Your task to perform on an android device: Open Wikipedia Image 0: 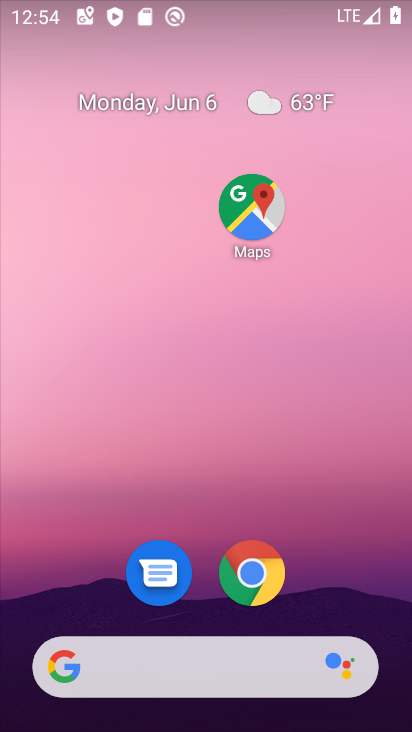
Step 0: drag from (188, 462) to (177, 67)
Your task to perform on an android device: Open Wikipedia Image 1: 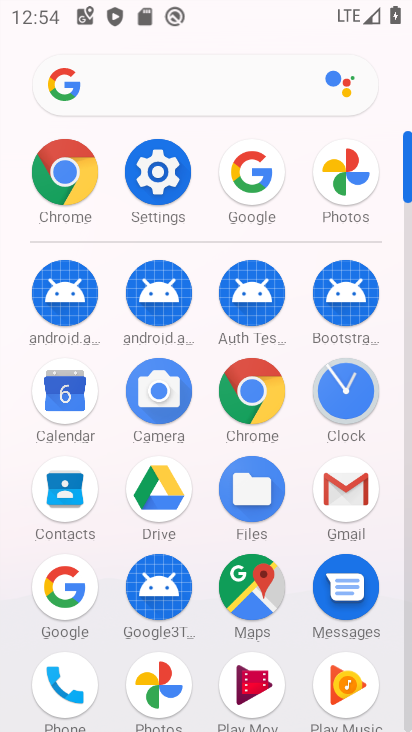
Step 1: click (258, 400)
Your task to perform on an android device: Open Wikipedia Image 2: 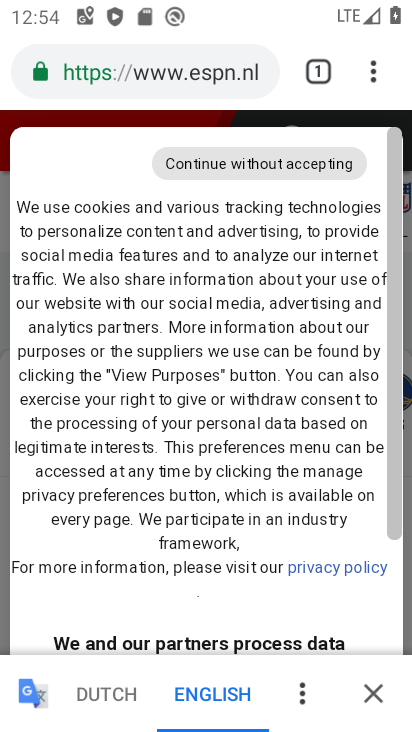
Step 2: click (319, 80)
Your task to perform on an android device: Open Wikipedia Image 3: 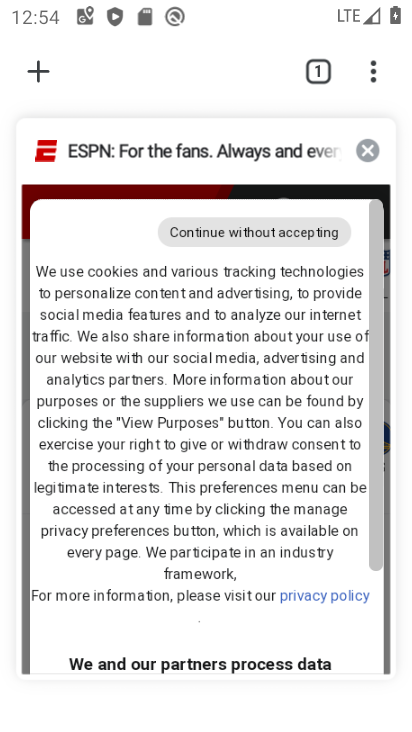
Step 3: click (39, 76)
Your task to perform on an android device: Open Wikipedia Image 4: 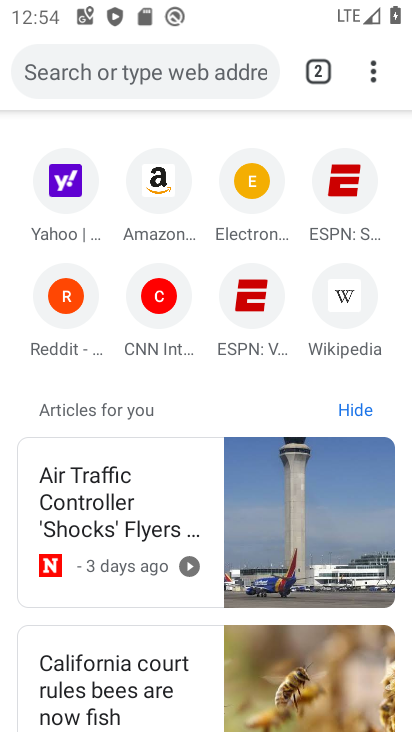
Step 4: click (343, 320)
Your task to perform on an android device: Open Wikipedia Image 5: 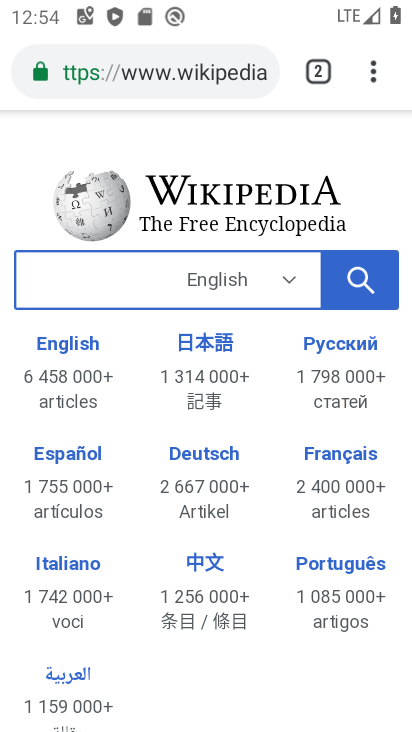
Step 5: task complete